Your task to perform on an android device: Go to notification settings Image 0: 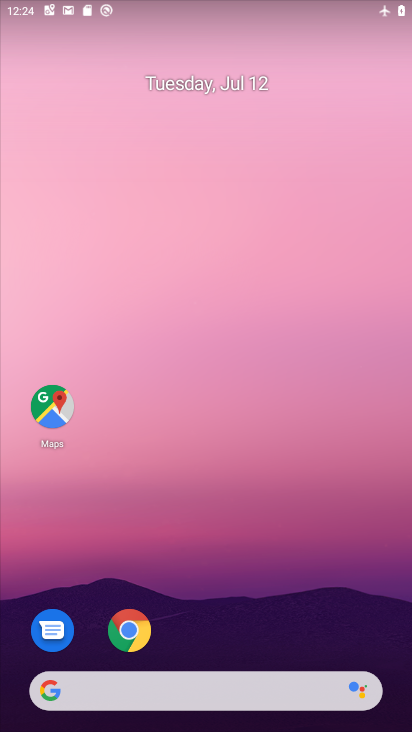
Step 0: drag from (283, 578) to (290, 28)
Your task to perform on an android device: Go to notification settings Image 1: 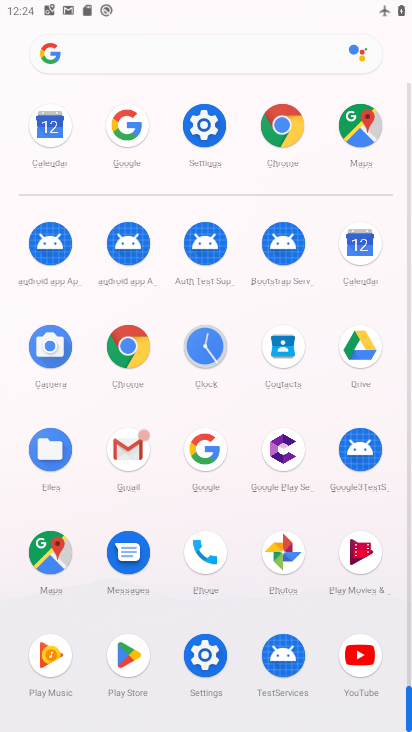
Step 1: click (206, 143)
Your task to perform on an android device: Go to notification settings Image 2: 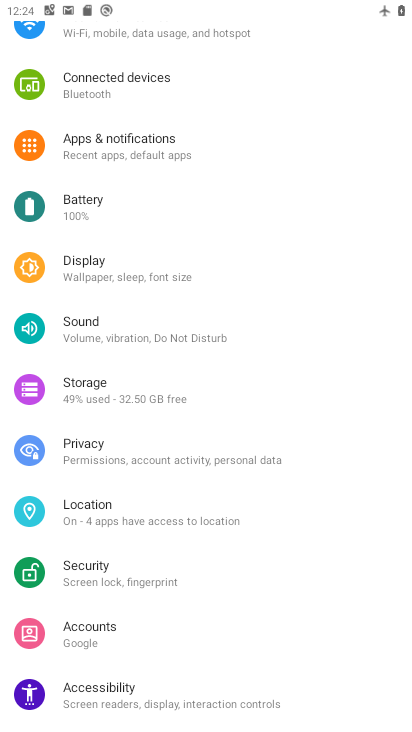
Step 2: drag from (249, 362) to (226, 727)
Your task to perform on an android device: Go to notification settings Image 3: 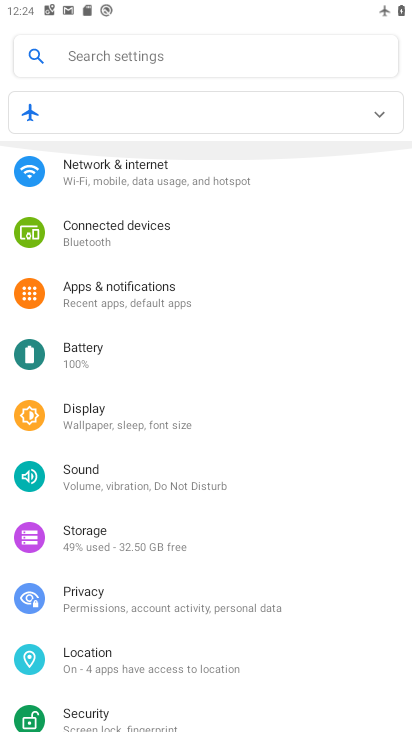
Step 3: click (210, 647)
Your task to perform on an android device: Go to notification settings Image 4: 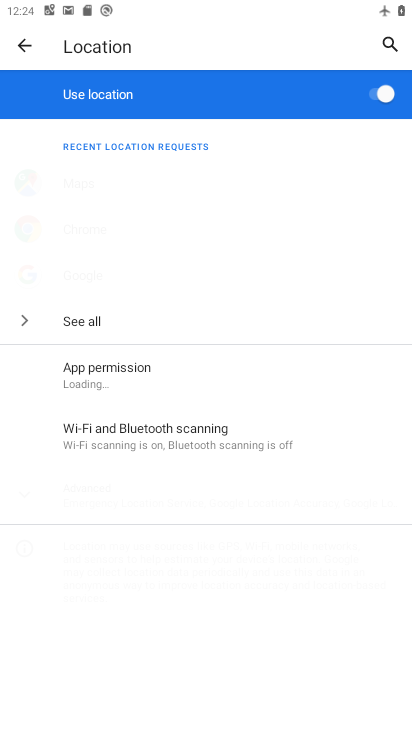
Step 4: click (180, 294)
Your task to perform on an android device: Go to notification settings Image 5: 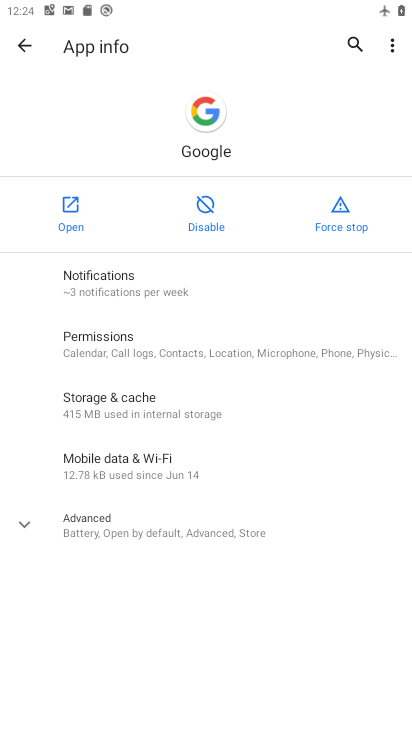
Step 5: click (157, 291)
Your task to perform on an android device: Go to notification settings Image 6: 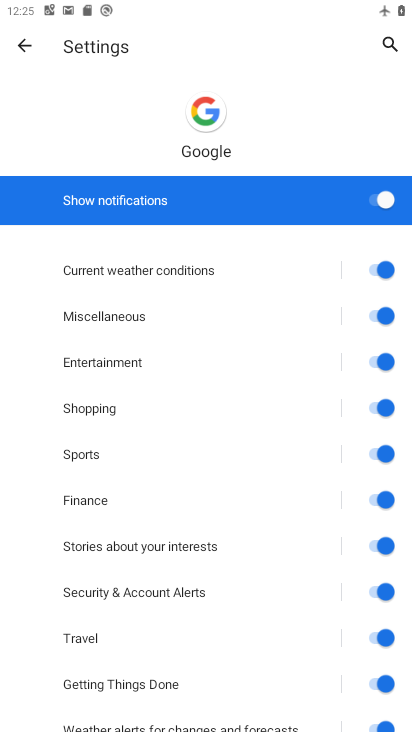
Step 6: task complete